Your task to perform on an android device: find photos in the google photos app Image 0: 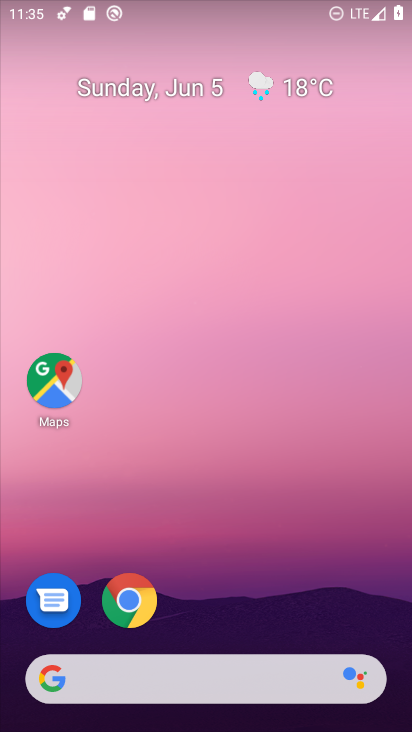
Step 0: drag from (226, 613) to (243, 57)
Your task to perform on an android device: find photos in the google photos app Image 1: 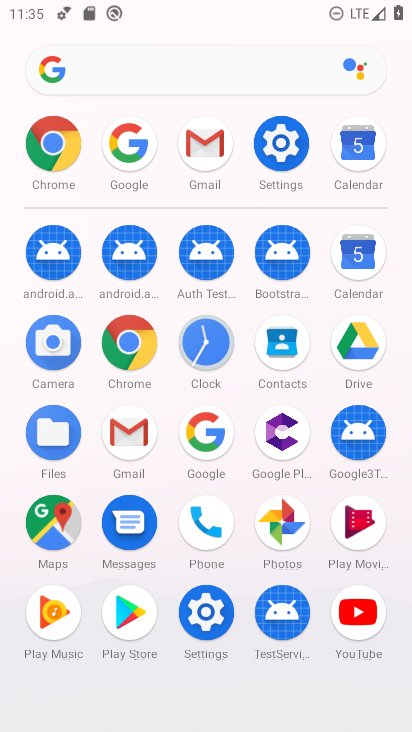
Step 1: click (282, 523)
Your task to perform on an android device: find photos in the google photos app Image 2: 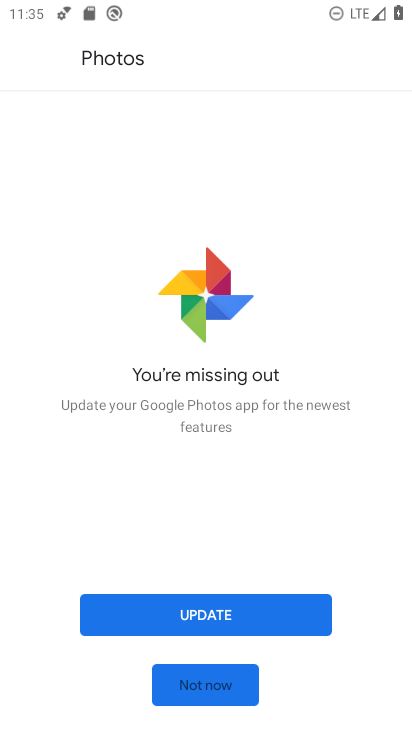
Step 2: click (219, 692)
Your task to perform on an android device: find photos in the google photos app Image 3: 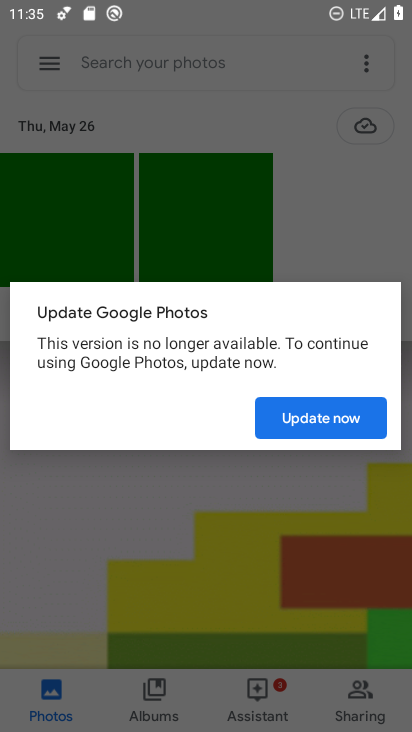
Step 3: click (365, 404)
Your task to perform on an android device: find photos in the google photos app Image 4: 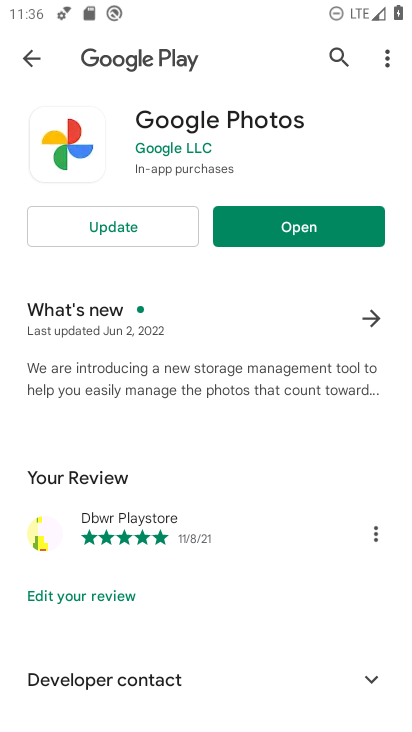
Step 4: click (296, 200)
Your task to perform on an android device: find photos in the google photos app Image 5: 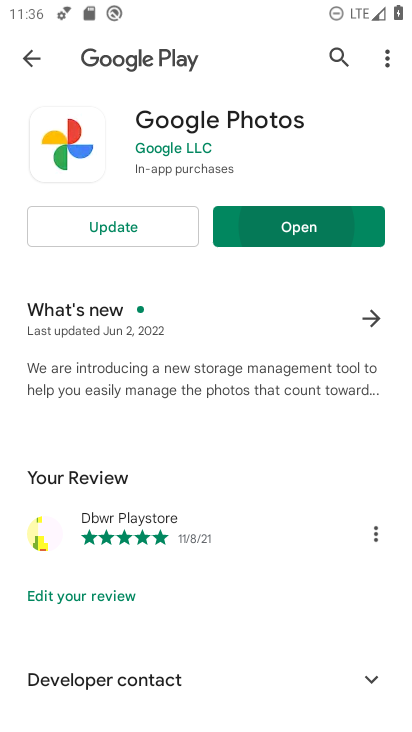
Step 5: click (302, 217)
Your task to perform on an android device: find photos in the google photos app Image 6: 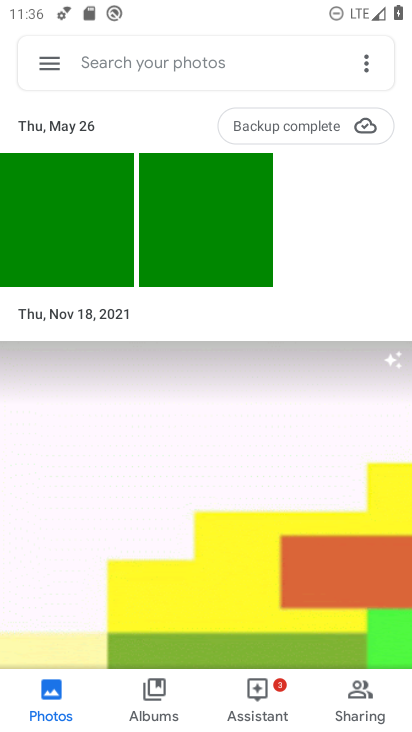
Step 6: click (182, 55)
Your task to perform on an android device: find photos in the google photos app Image 7: 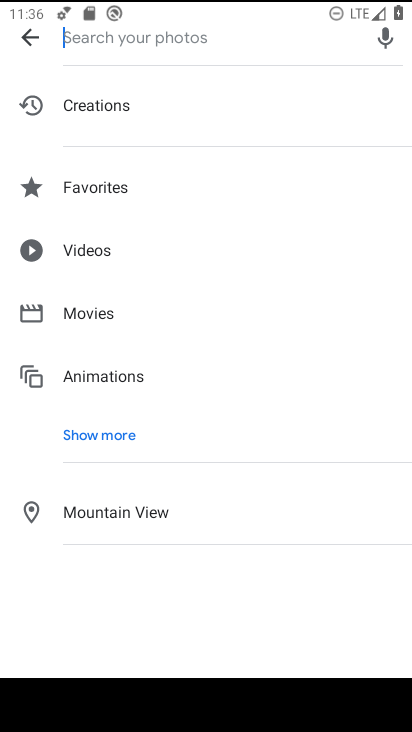
Step 7: type "aaa"
Your task to perform on an android device: find photos in the google photos app Image 8: 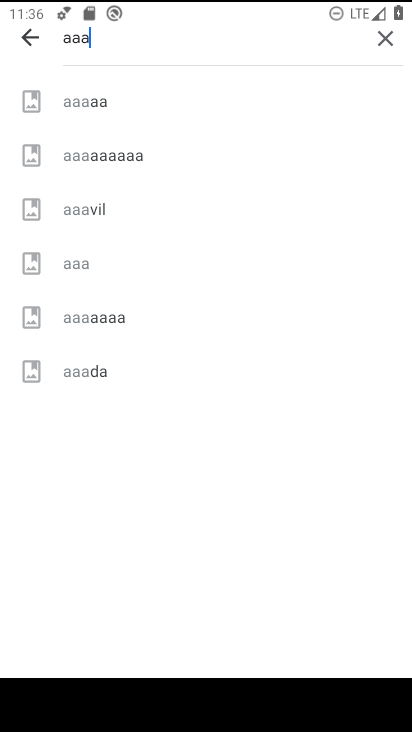
Step 8: click (129, 201)
Your task to perform on an android device: find photos in the google photos app Image 9: 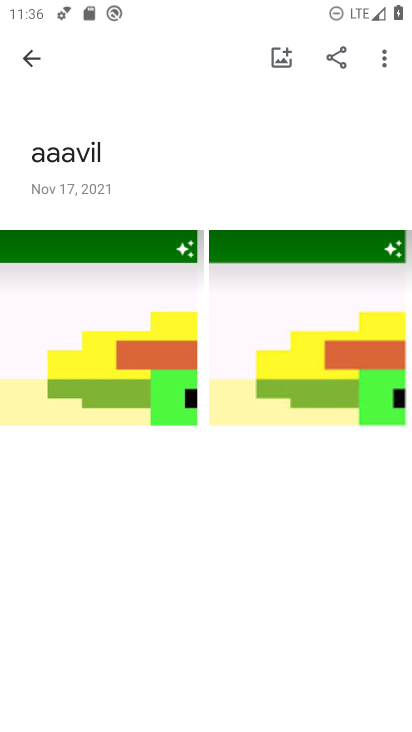
Step 9: task complete